Your task to perform on an android device: stop showing notifications on the lock screen Image 0: 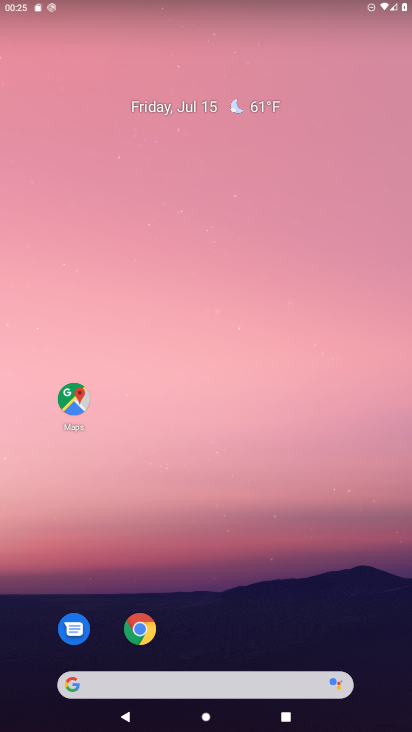
Step 0: drag from (232, 659) to (252, 160)
Your task to perform on an android device: stop showing notifications on the lock screen Image 1: 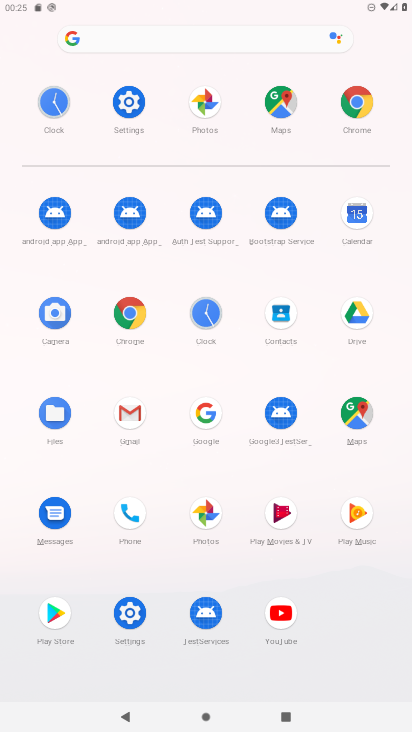
Step 1: click (133, 619)
Your task to perform on an android device: stop showing notifications on the lock screen Image 2: 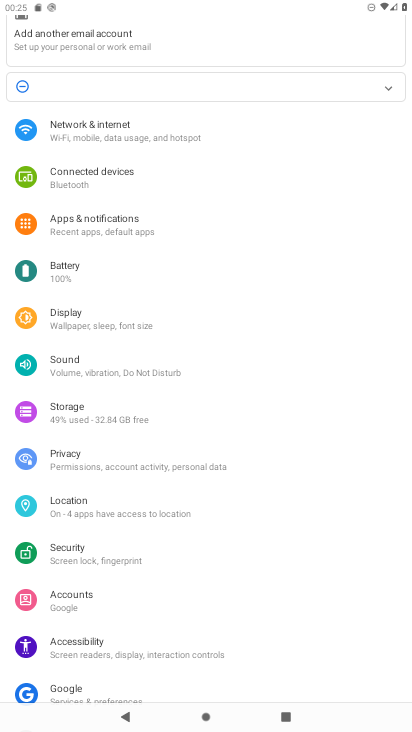
Step 2: click (86, 231)
Your task to perform on an android device: stop showing notifications on the lock screen Image 3: 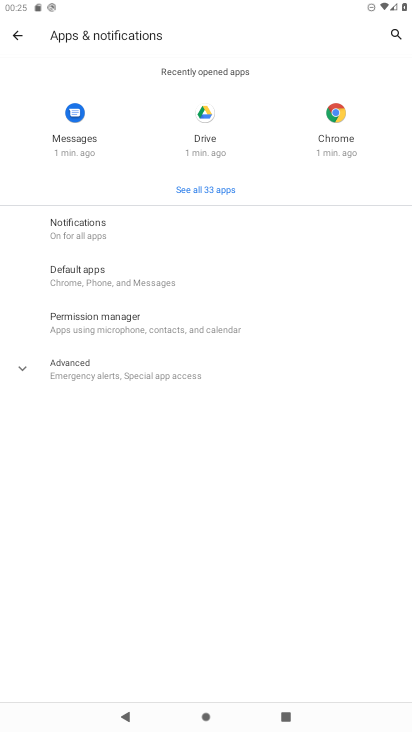
Step 3: click (86, 231)
Your task to perform on an android device: stop showing notifications on the lock screen Image 4: 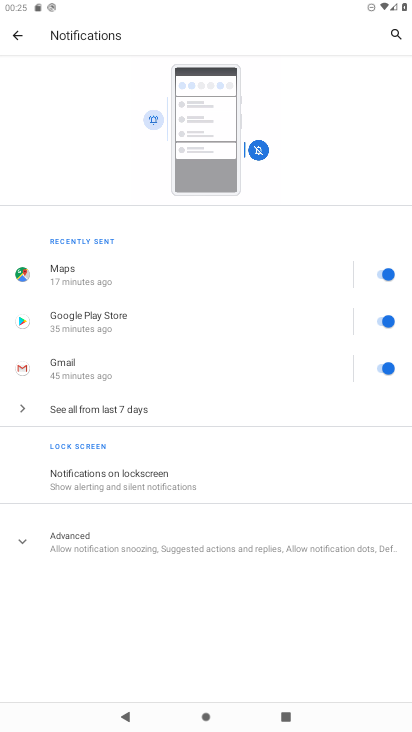
Step 4: click (141, 493)
Your task to perform on an android device: stop showing notifications on the lock screen Image 5: 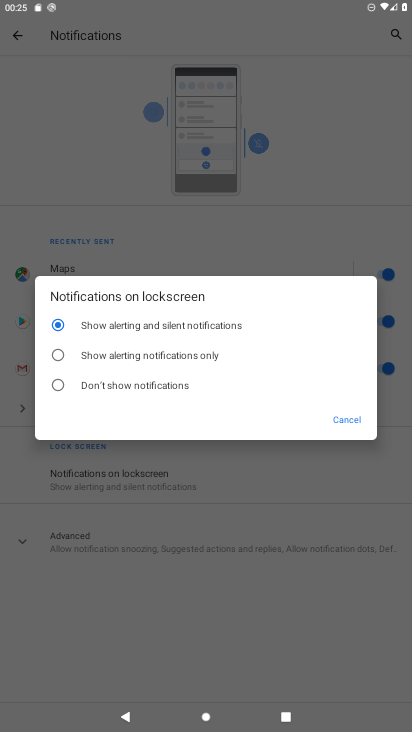
Step 5: click (129, 390)
Your task to perform on an android device: stop showing notifications on the lock screen Image 6: 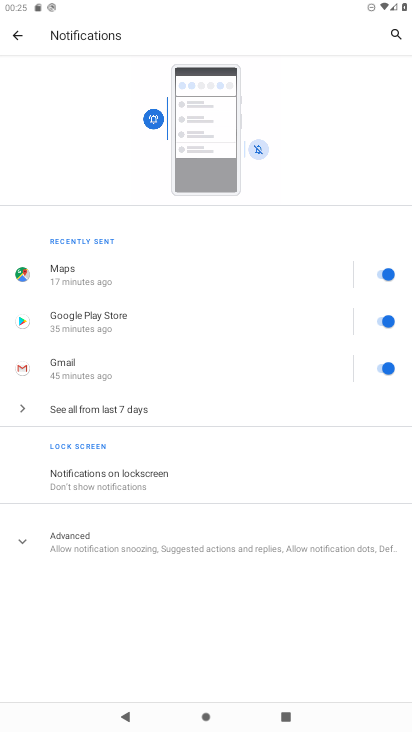
Step 6: task complete